Your task to perform on an android device: Open Maps and search for coffee Image 0: 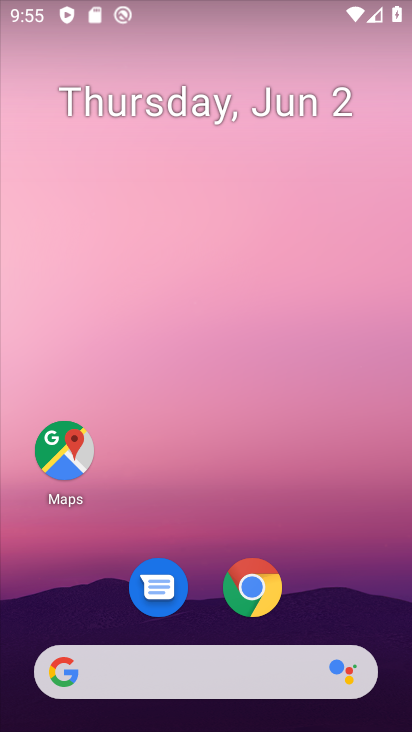
Step 0: click (74, 462)
Your task to perform on an android device: Open Maps and search for coffee Image 1: 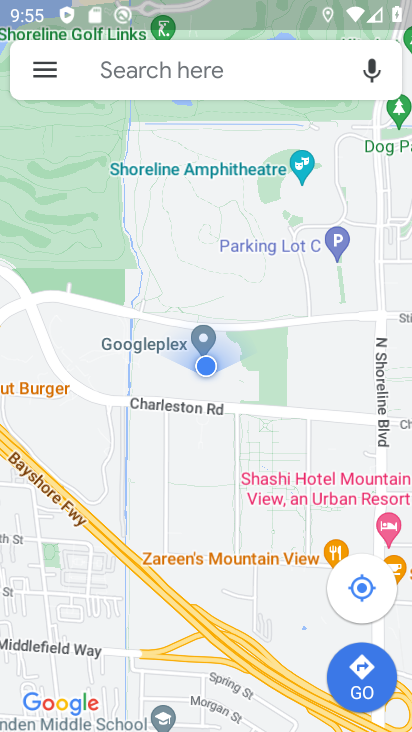
Step 1: click (210, 76)
Your task to perform on an android device: Open Maps and search for coffee Image 2: 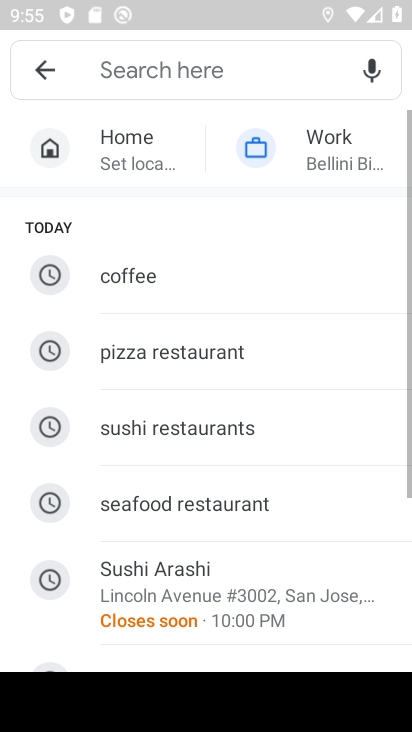
Step 2: click (211, 269)
Your task to perform on an android device: Open Maps and search for coffee Image 3: 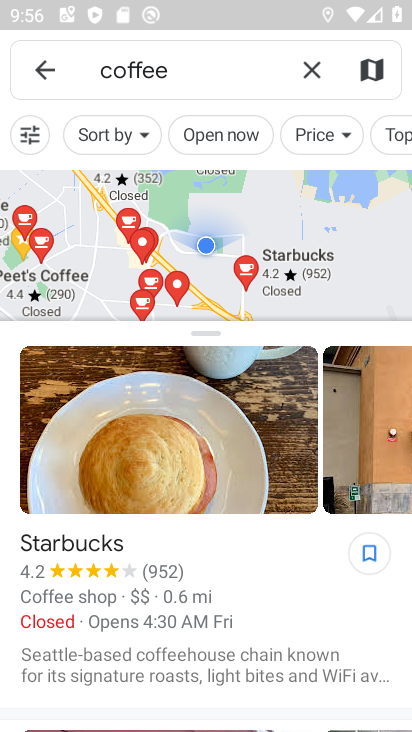
Step 3: task complete